Your task to perform on an android device: check the backup settings in the google photos Image 0: 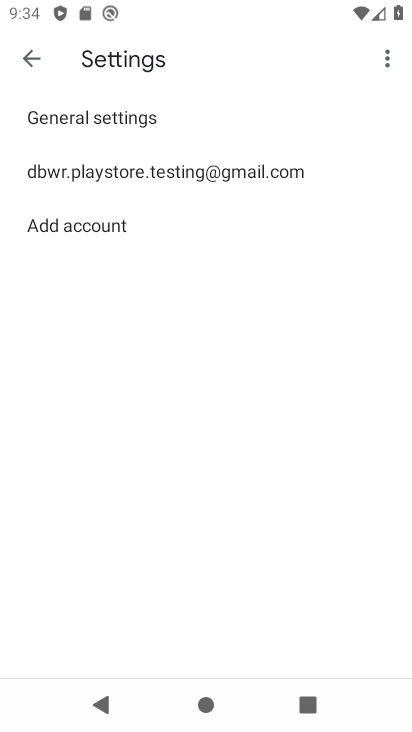
Step 0: press home button
Your task to perform on an android device: check the backup settings in the google photos Image 1: 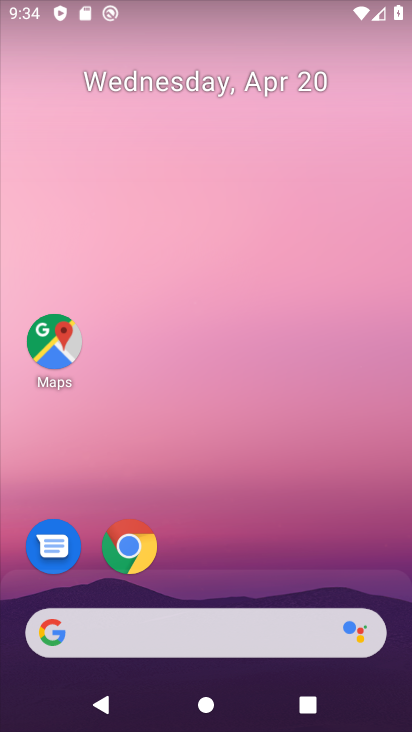
Step 1: drag from (222, 723) to (206, 135)
Your task to perform on an android device: check the backup settings in the google photos Image 2: 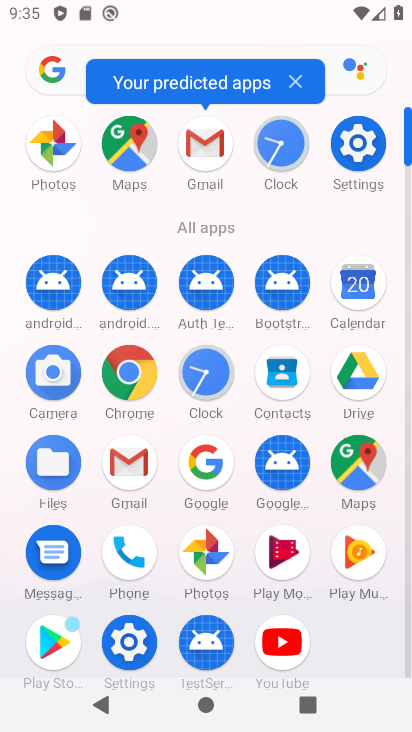
Step 2: click (55, 144)
Your task to perform on an android device: check the backup settings in the google photos Image 3: 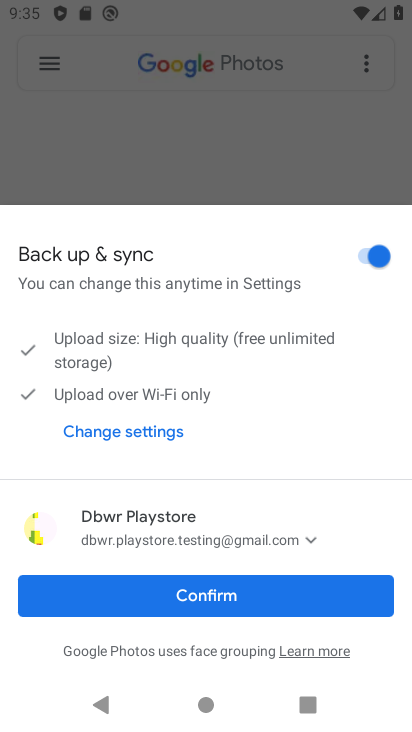
Step 3: click (214, 593)
Your task to perform on an android device: check the backup settings in the google photos Image 4: 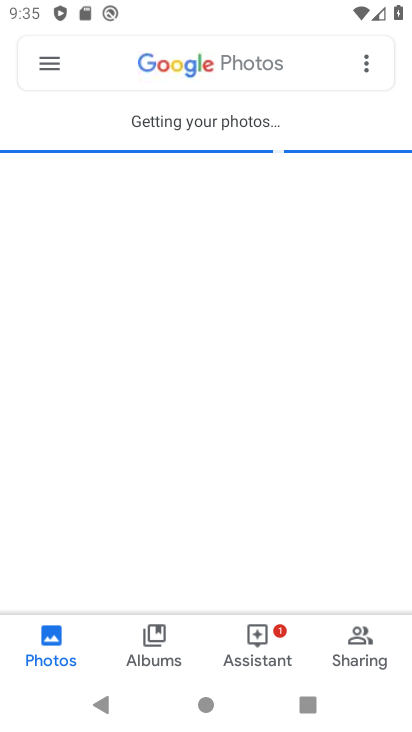
Step 4: click (47, 59)
Your task to perform on an android device: check the backup settings in the google photos Image 5: 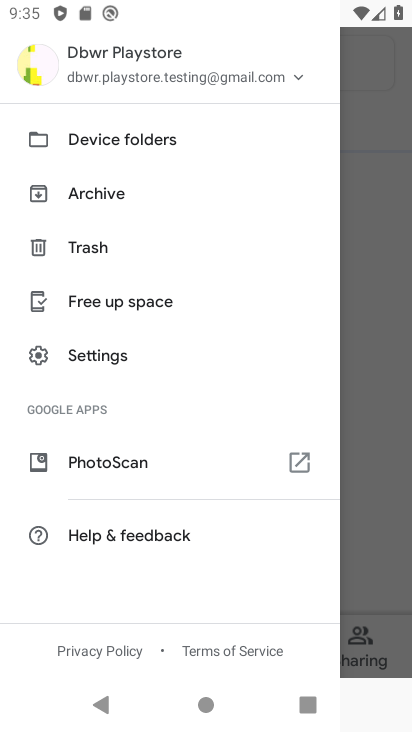
Step 5: click (96, 351)
Your task to perform on an android device: check the backup settings in the google photos Image 6: 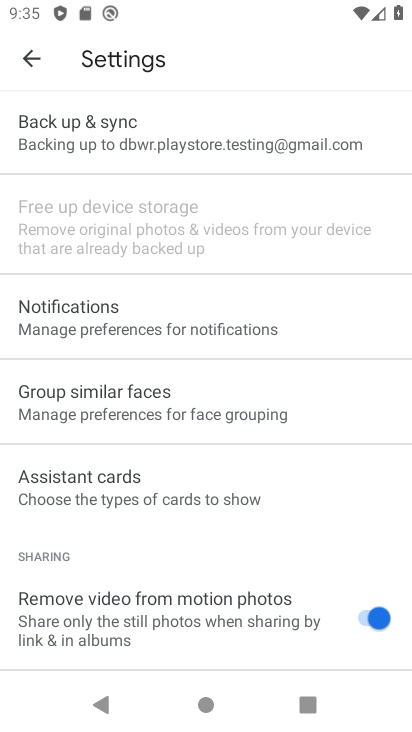
Step 6: click (101, 130)
Your task to perform on an android device: check the backup settings in the google photos Image 7: 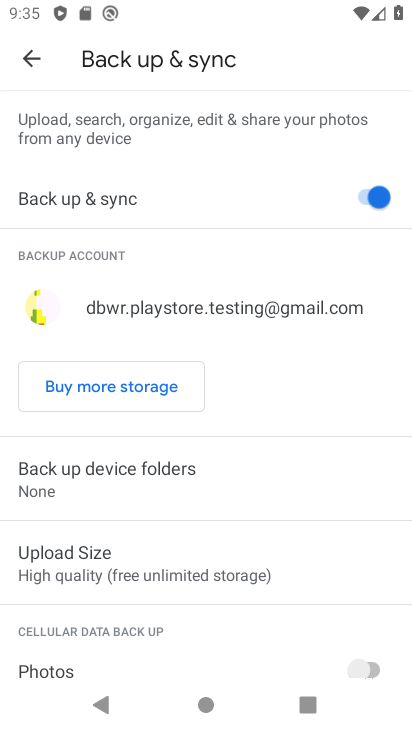
Step 7: task complete